Your task to perform on an android device: Do I have any events today? Image 0: 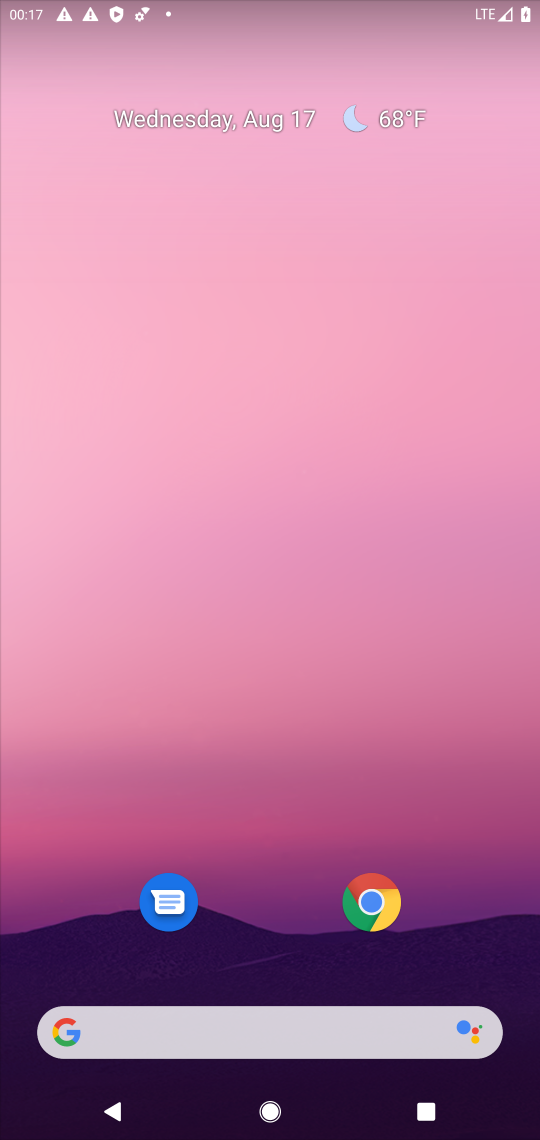
Step 0: drag from (272, 920) to (395, 38)
Your task to perform on an android device: Do I have any events today? Image 1: 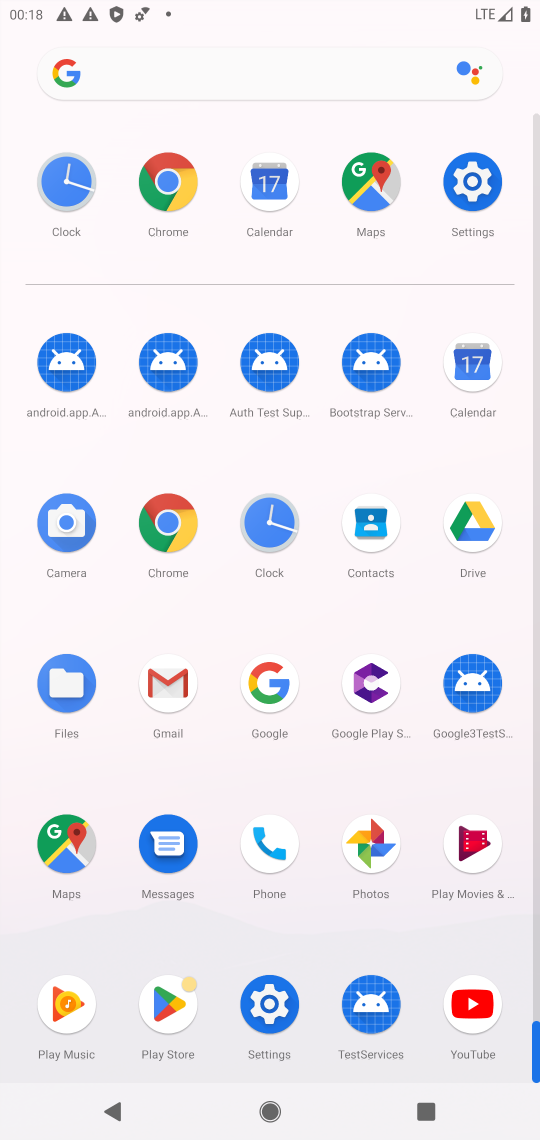
Step 1: click (482, 392)
Your task to perform on an android device: Do I have any events today? Image 2: 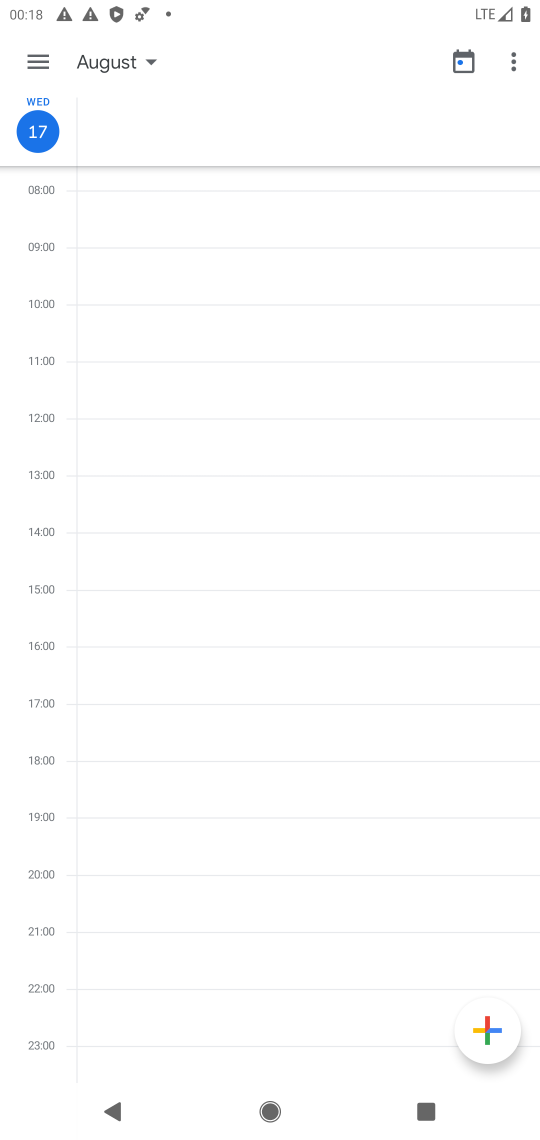
Step 2: click (40, 60)
Your task to perform on an android device: Do I have any events today? Image 3: 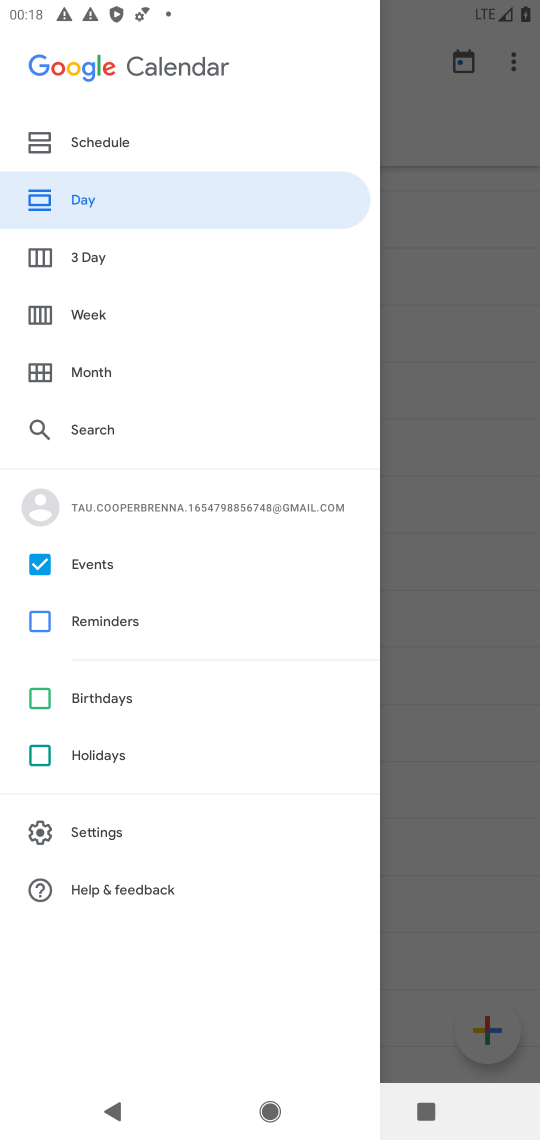
Step 3: task complete